Your task to perform on an android device: Go to ESPN.com Image 0: 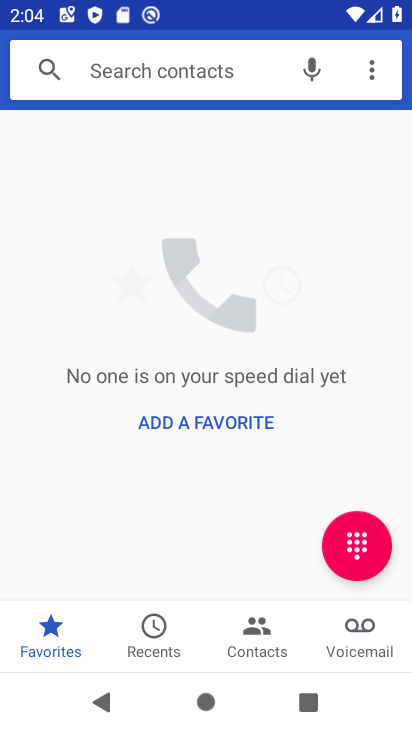
Step 0: press home button
Your task to perform on an android device: Go to ESPN.com Image 1: 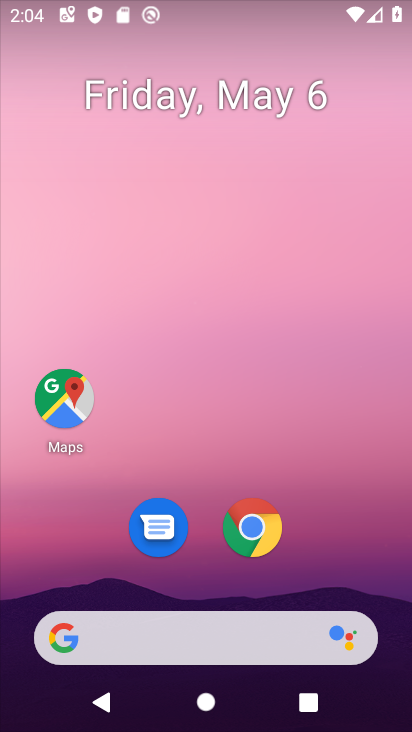
Step 1: click (263, 535)
Your task to perform on an android device: Go to ESPN.com Image 2: 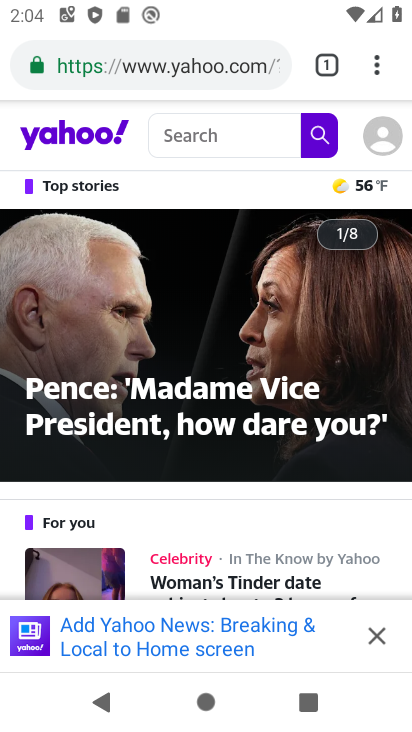
Step 2: click (241, 61)
Your task to perform on an android device: Go to ESPN.com Image 3: 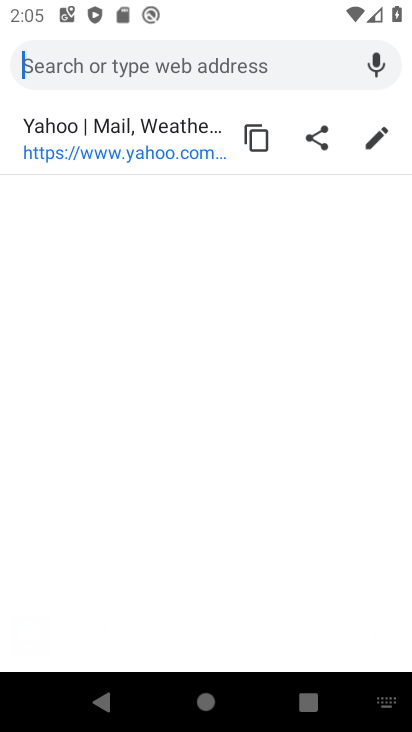
Step 3: type "ESPN.com"
Your task to perform on an android device: Go to ESPN.com Image 4: 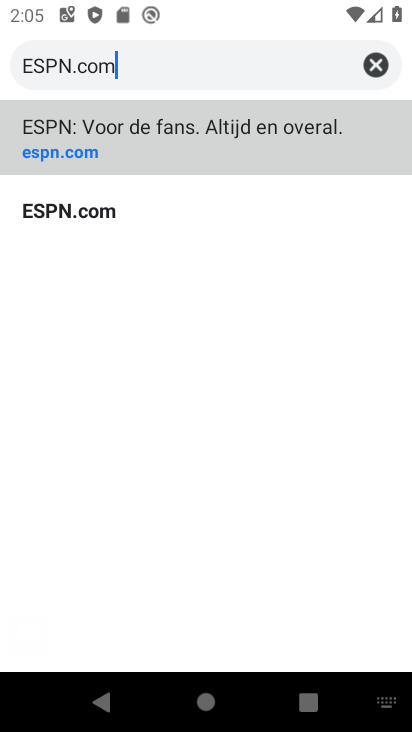
Step 4: click (49, 148)
Your task to perform on an android device: Go to ESPN.com Image 5: 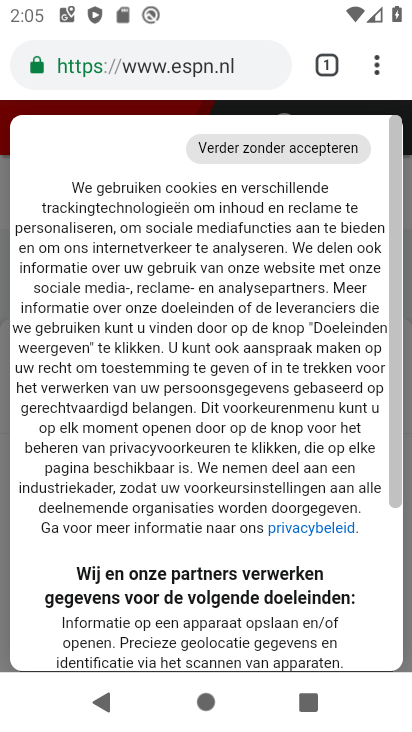
Step 5: task complete